Your task to perform on an android device: install app "Adobe Express: Graphic Design" Image 0: 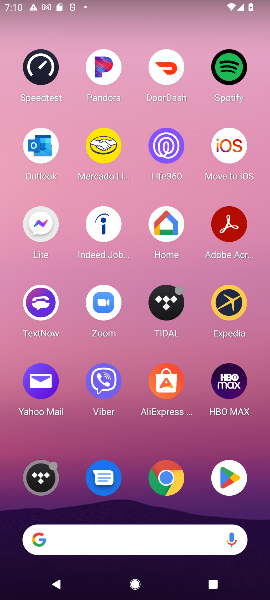
Step 0: press home button
Your task to perform on an android device: install app "Adobe Express: Graphic Design" Image 1: 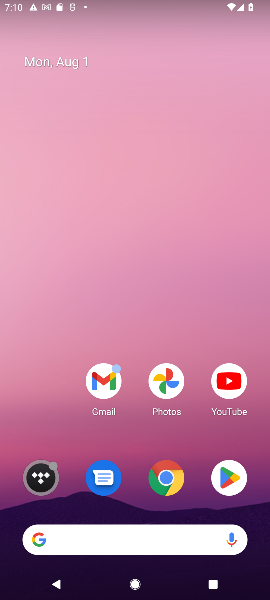
Step 1: click (234, 469)
Your task to perform on an android device: install app "Adobe Express: Graphic Design" Image 2: 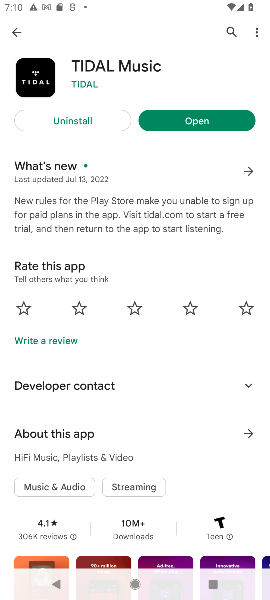
Step 2: click (223, 34)
Your task to perform on an android device: install app "Adobe Express: Graphic Design" Image 3: 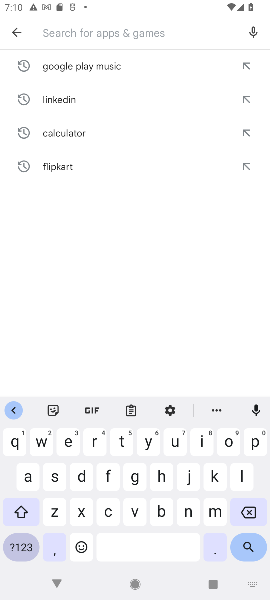
Step 3: click (58, 47)
Your task to perform on an android device: install app "Adobe Express: Graphic Design" Image 4: 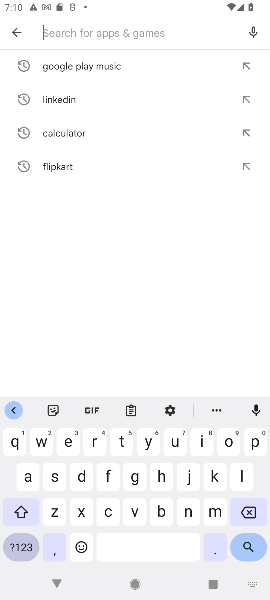
Step 4: click (28, 472)
Your task to perform on an android device: install app "Adobe Express: Graphic Design" Image 5: 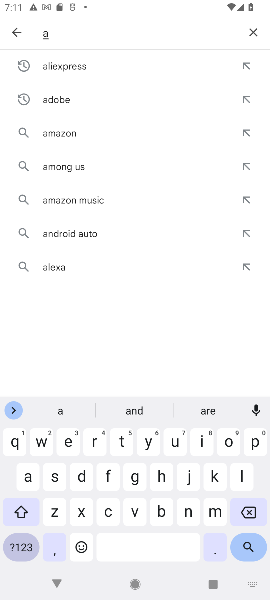
Step 5: click (80, 477)
Your task to perform on an android device: install app "Adobe Express: Graphic Design" Image 6: 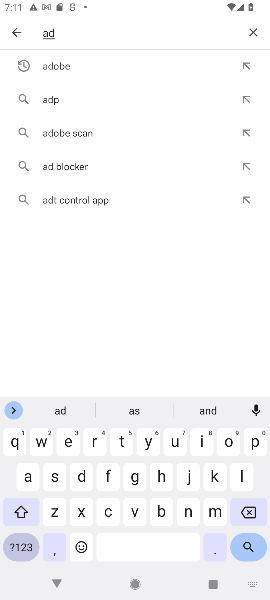
Step 6: click (78, 63)
Your task to perform on an android device: install app "Adobe Express: Graphic Design" Image 7: 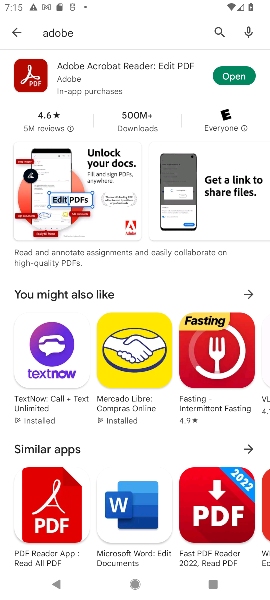
Step 7: task complete